Your task to perform on an android device: Open settings on Google Maps Image 0: 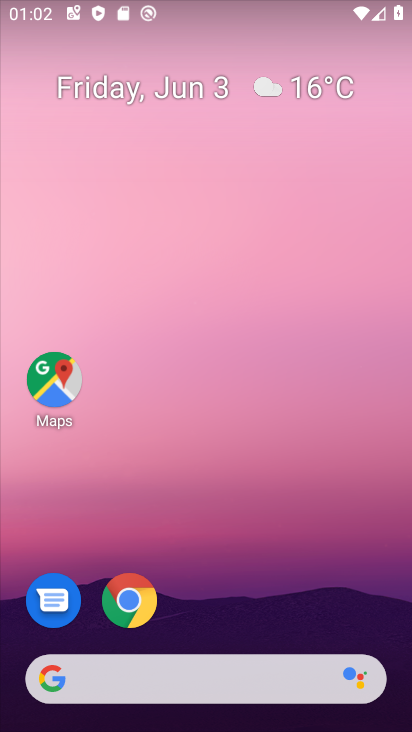
Step 0: drag from (180, 487) to (158, 23)
Your task to perform on an android device: Open settings on Google Maps Image 1: 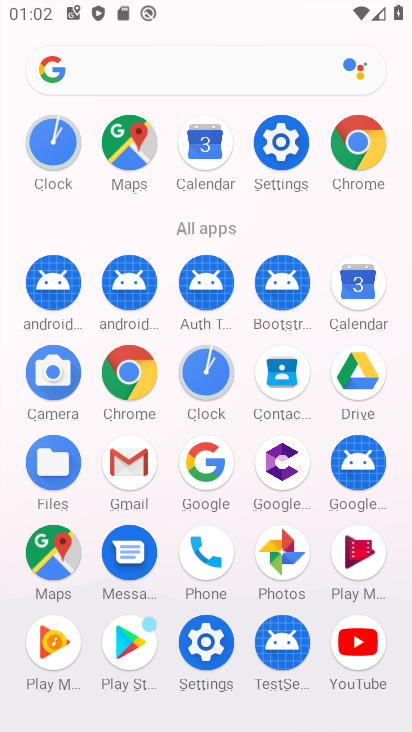
Step 1: click (131, 138)
Your task to perform on an android device: Open settings on Google Maps Image 2: 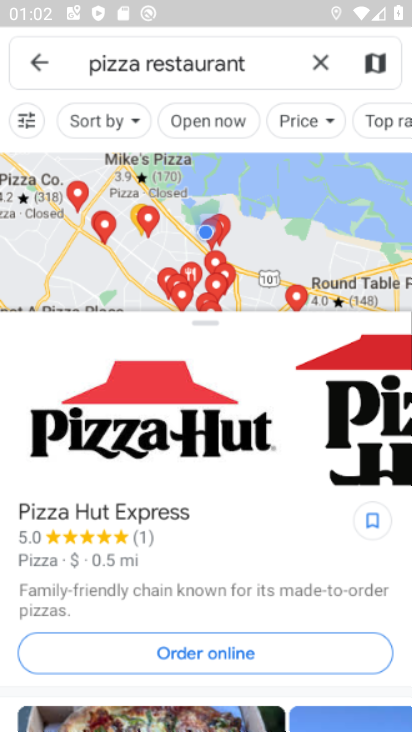
Step 2: click (320, 61)
Your task to perform on an android device: Open settings on Google Maps Image 3: 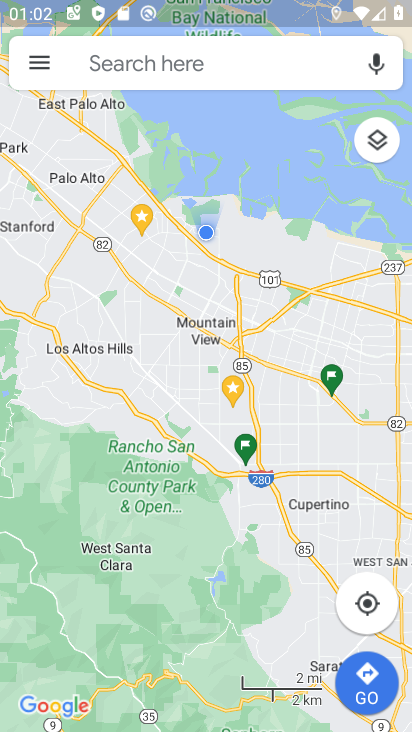
Step 3: click (37, 59)
Your task to perform on an android device: Open settings on Google Maps Image 4: 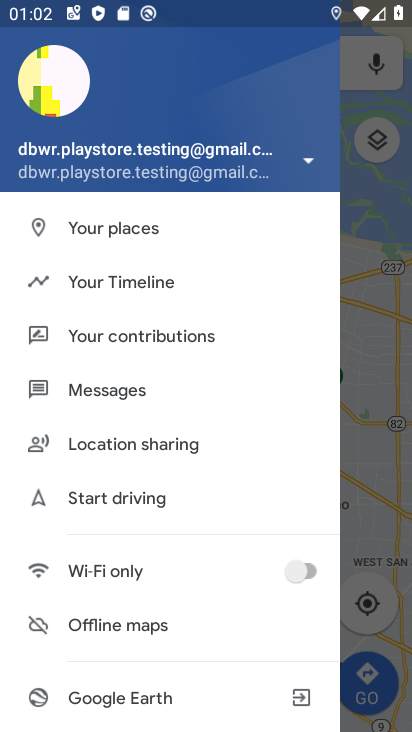
Step 4: drag from (206, 569) to (203, 181)
Your task to perform on an android device: Open settings on Google Maps Image 5: 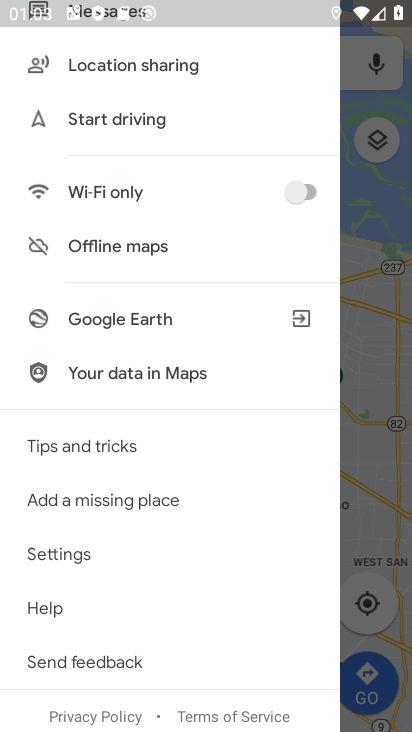
Step 5: click (83, 552)
Your task to perform on an android device: Open settings on Google Maps Image 6: 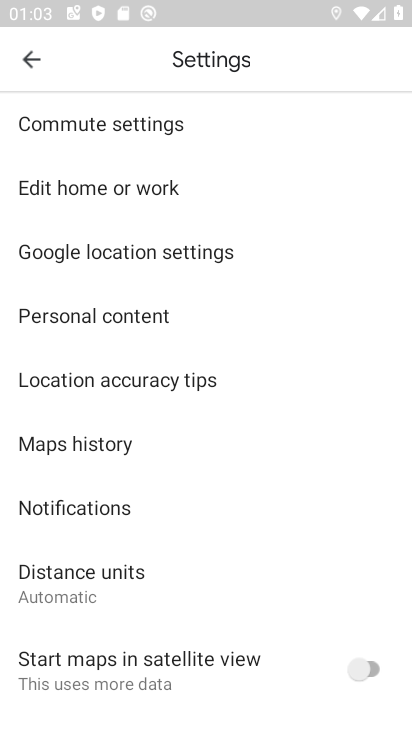
Step 6: task complete